Your task to perform on an android device: toggle airplane mode Image 0: 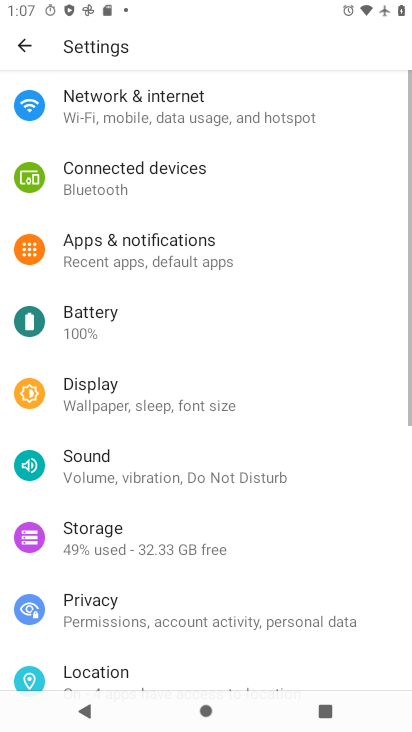
Step 0: press home button
Your task to perform on an android device: toggle airplane mode Image 1: 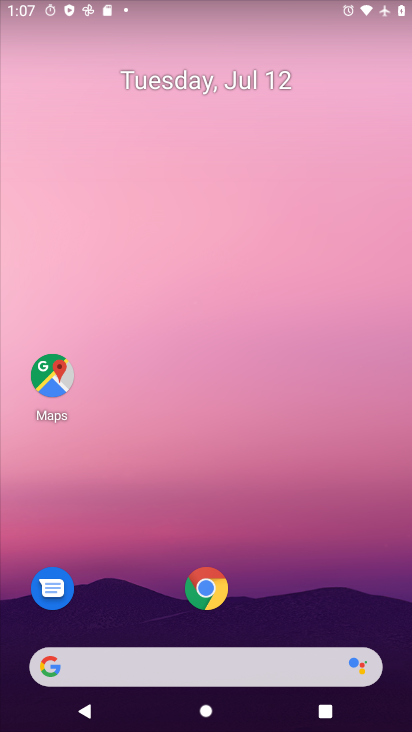
Step 1: drag from (238, 659) to (339, 3)
Your task to perform on an android device: toggle airplane mode Image 2: 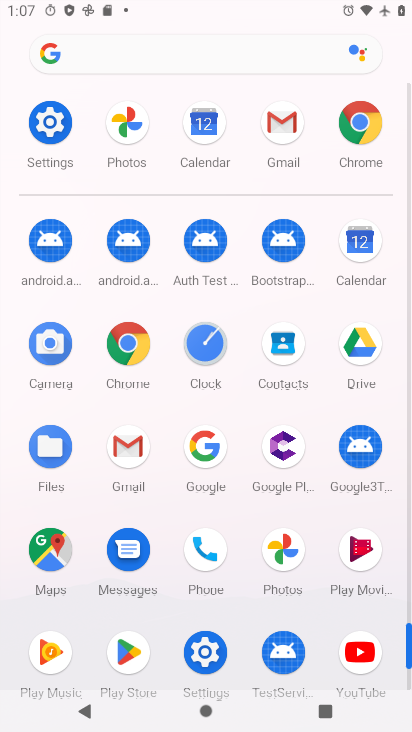
Step 2: click (57, 120)
Your task to perform on an android device: toggle airplane mode Image 3: 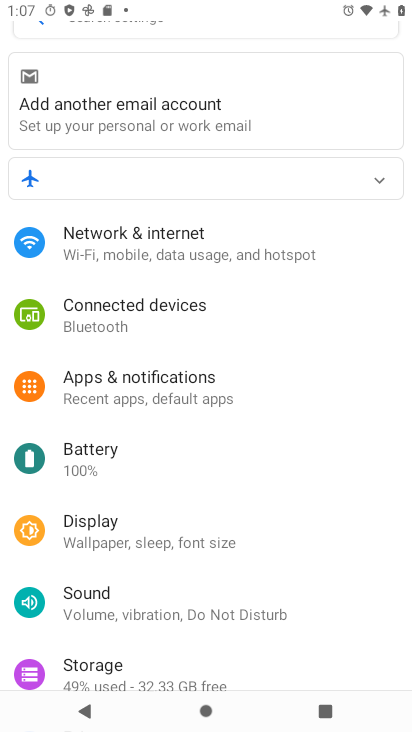
Step 3: click (141, 246)
Your task to perform on an android device: toggle airplane mode Image 4: 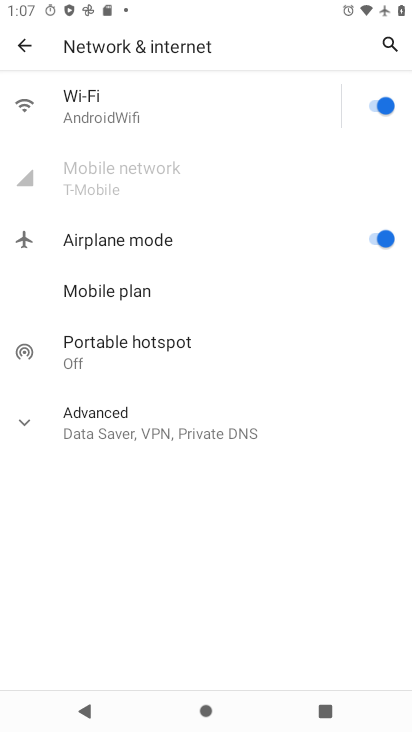
Step 4: click (376, 239)
Your task to perform on an android device: toggle airplane mode Image 5: 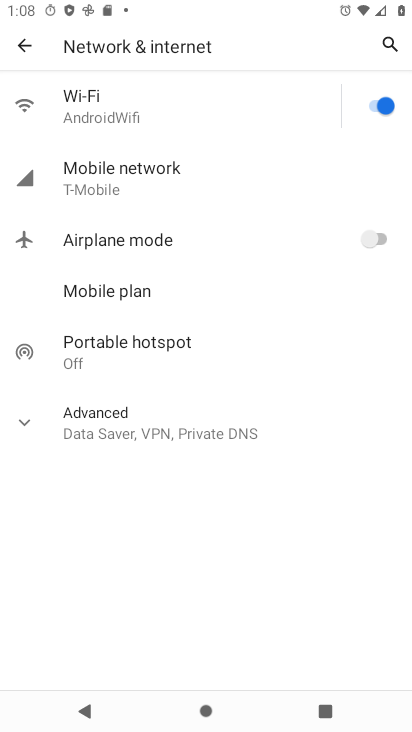
Step 5: task complete